Your task to perform on an android device: Add bose quietcomfort 35 to the cart on walmart.com Image 0: 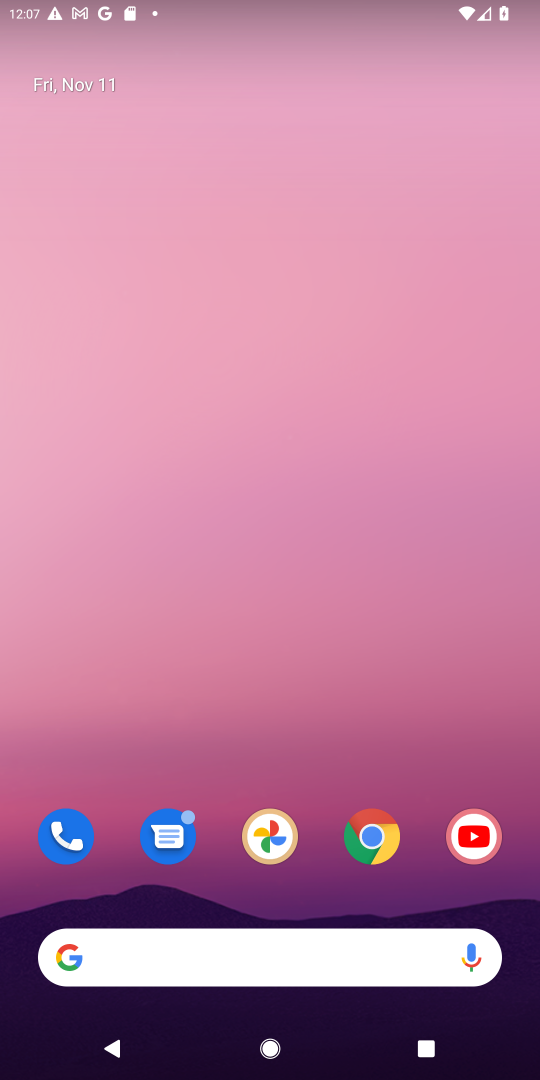
Step 0: click (274, 942)
Your task to perform on an android device: Add bose quietcomfort 35 to the cart on walmart.com Image 1: 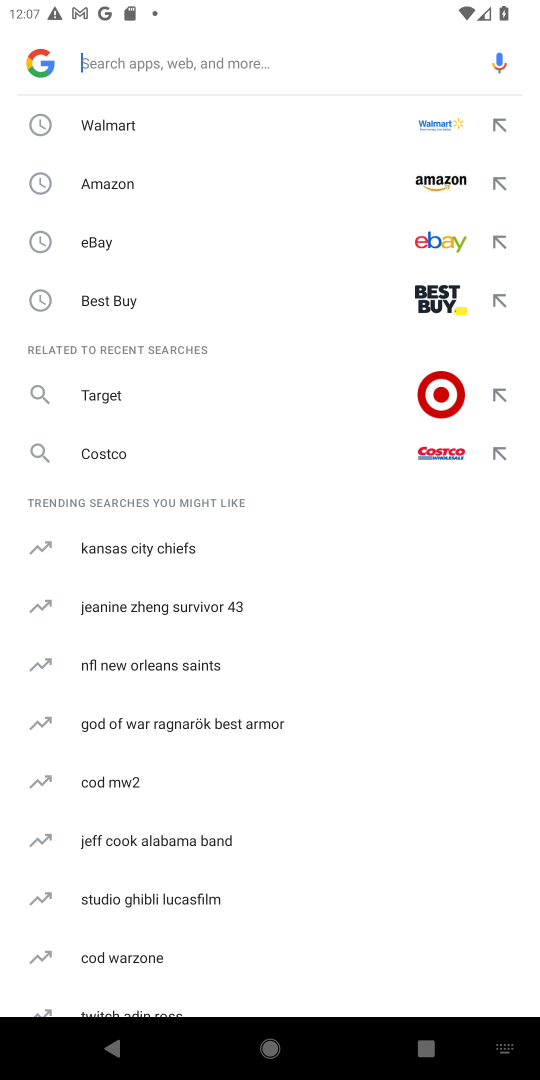
Step 1: click (125, 137)
Your task to perform on an android device: Add bose quietcomfort 35 to the cart on walmart.com Image 2: 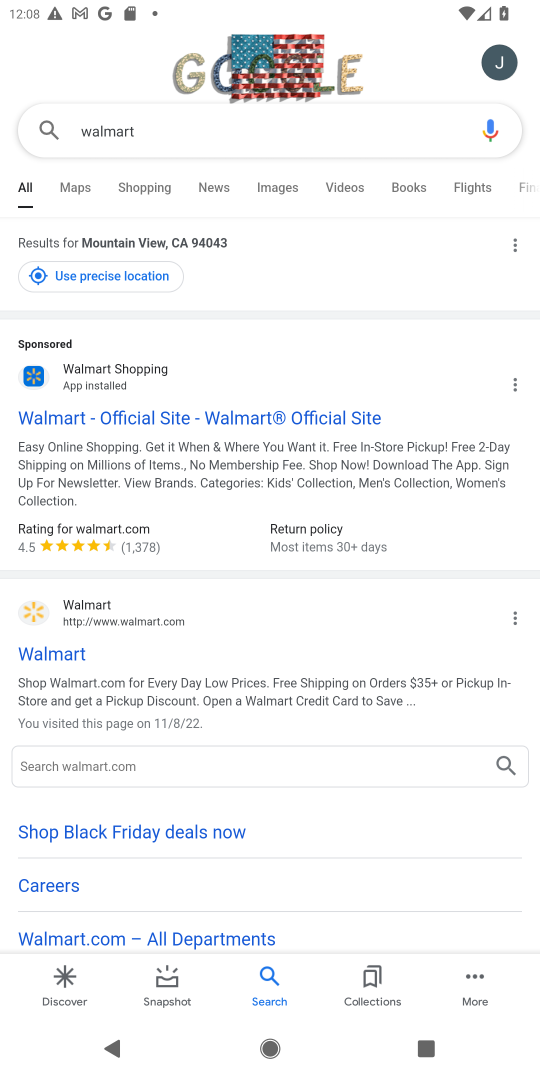
Step 2: click (64, 651)
Your task to perform on an android device: Add bose quietcomfort 35 to the cart on walmart.com Image 3: 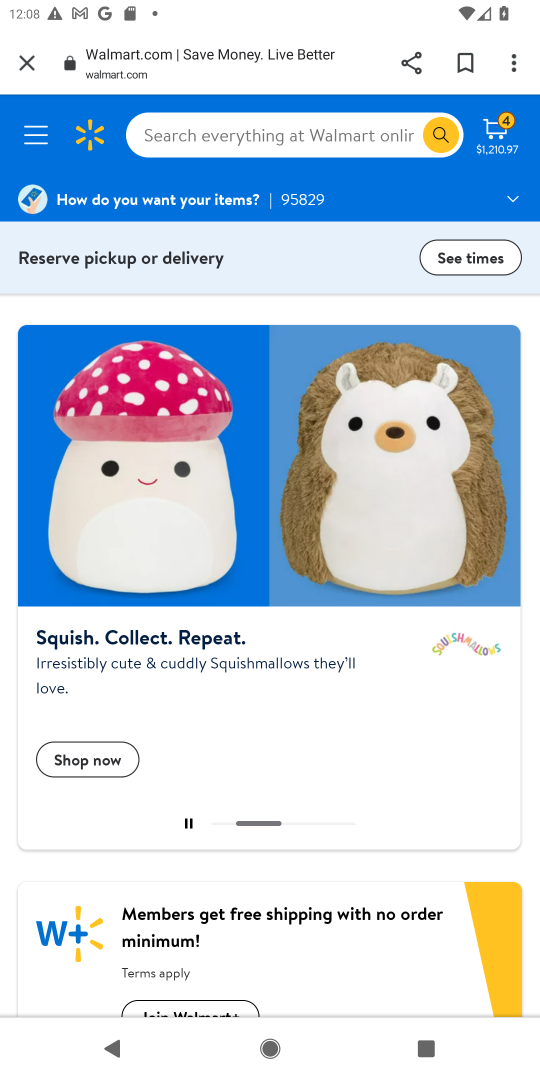
Step 3: click (281, 128)
Your task to perform on an android device: Add bose quietcomfort 35 to the cart on walmart.com Image 4: 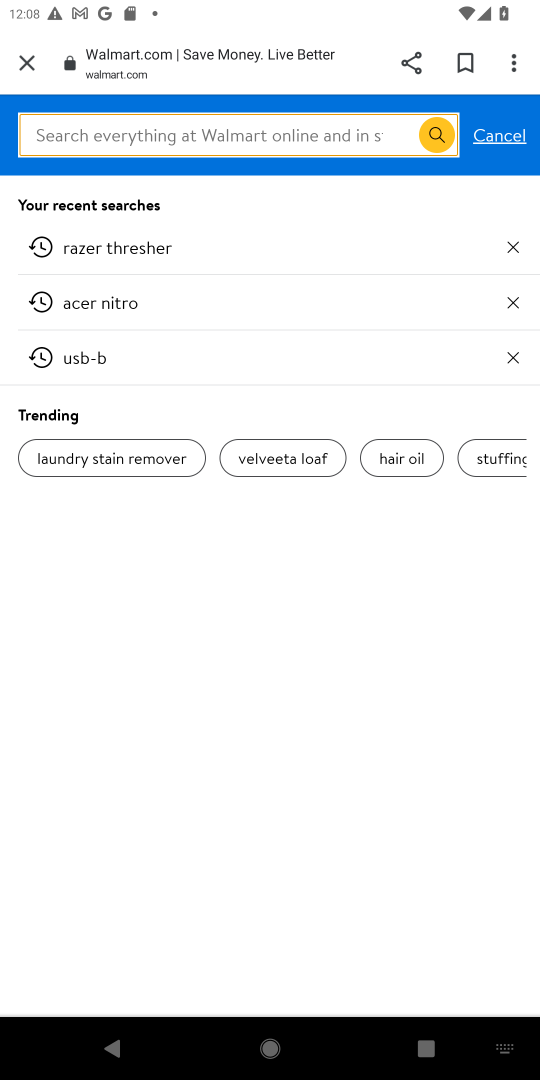
Step 4: type "quietcomfort 35 "
Your task to perform on an android device: Add bose quietcomfort 35 to the cart on walmart.com Image 5: 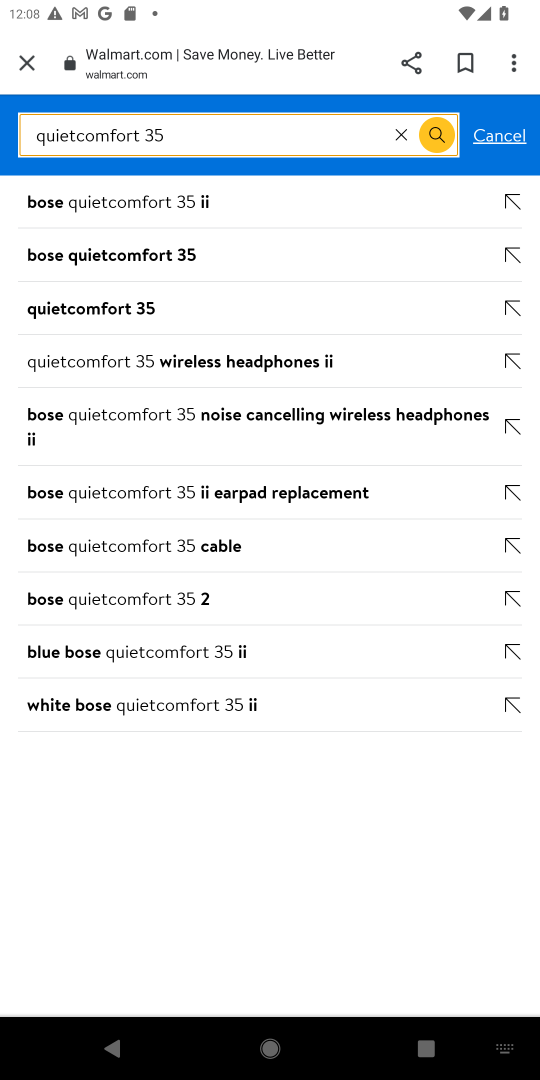
Step 5: click (124, 305)
Your task to perform on an android device: Add bose quietcomfort 35 to the cart on walmart.com Image 6: 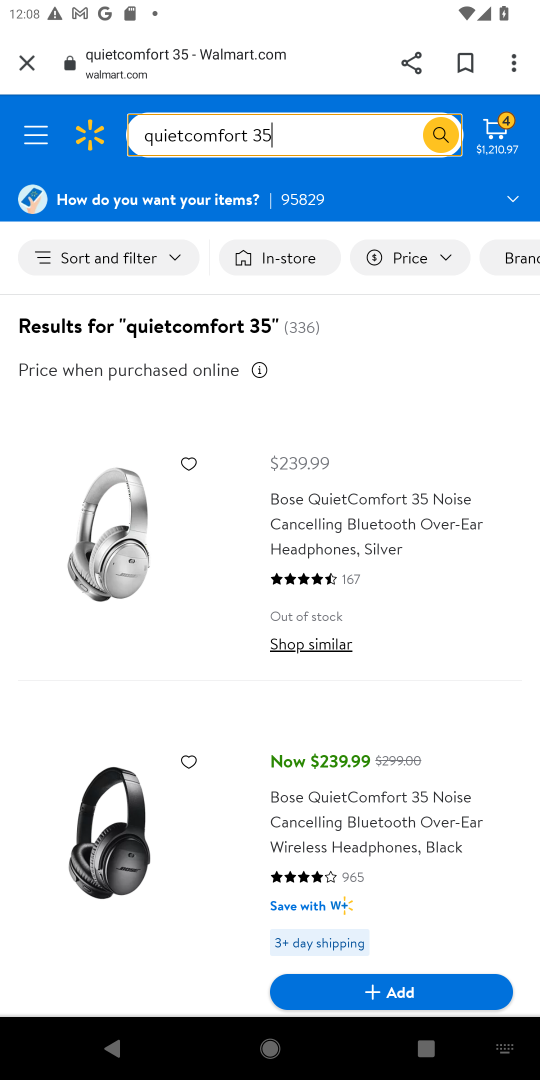
Step 6: click (124, 305)
Your task to perform on an android device: Add bose quietcomfort 35 to the cart on walmart.com Image 7: 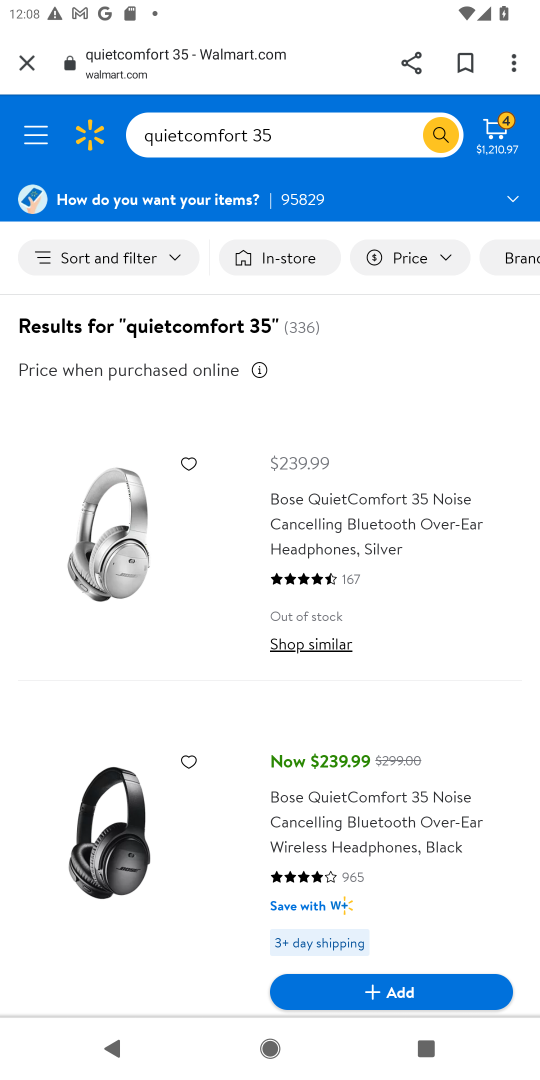
Step 7: click (397, 989)
Your task to perform on an android device: Add bose quietcomfort 35 to the cart on walmart.com Image 8: 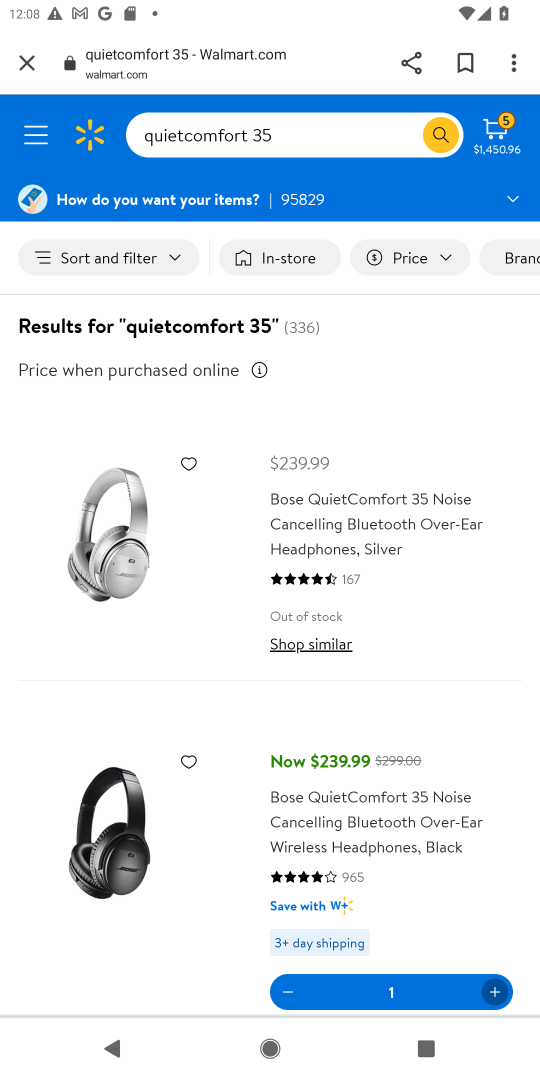
Step 8: task complete